Your task to perform on an android device: turn off notifications settings in the gmail app Image 0: 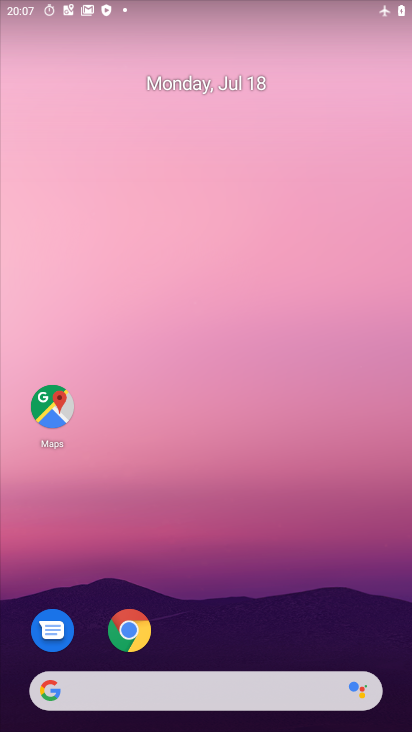
Step 0: drag from (278, 611) to (322, 74)
Your task to perform on an android device: turn off notifications settings in the gmail app Image 1: 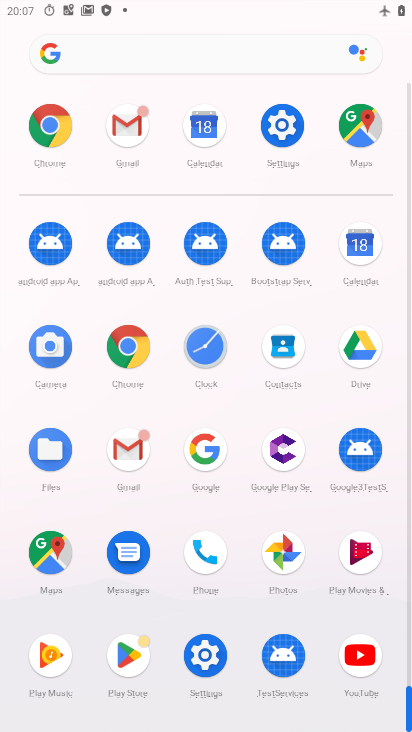
Step 1: click (145, 131)
Your task to perform on an android device: turn off notifications settings in the gmail app Image 2: 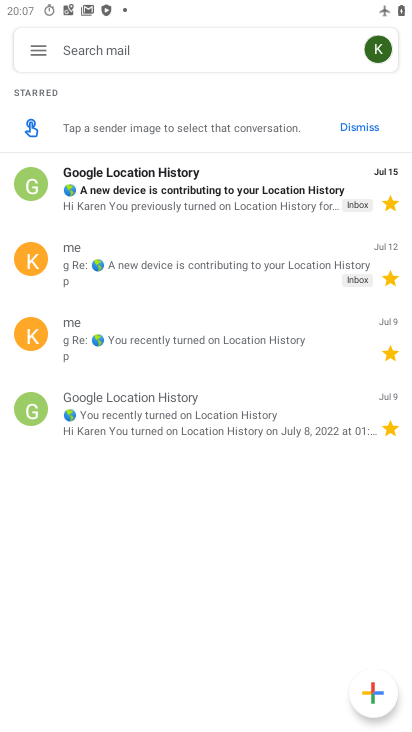
Step 2: click (26, 52)
Your task to perform on an android device: turn off notifications settings in the gmail app Image 3: 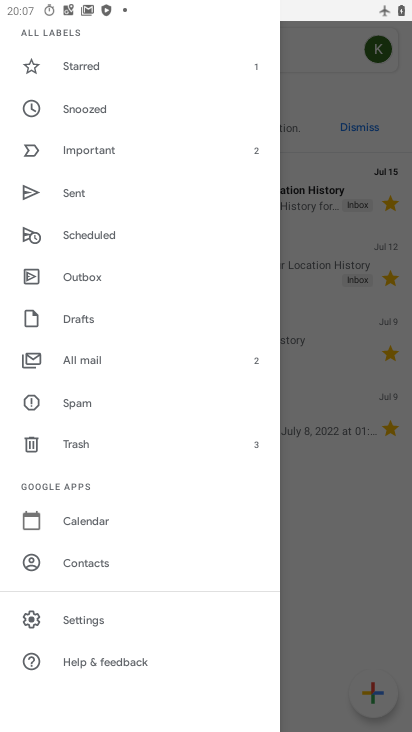
Step 3: click (89, 616)
Your task to perform on an android device: turn off notifications settings in the gmail app Image 4: 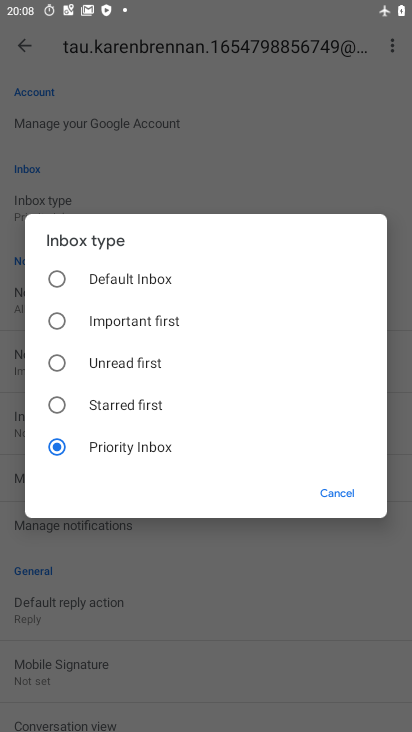
Step 4: click (359, 493)
Your task to perform on an android device: turn off notifications settings in the gmail app Image 5: 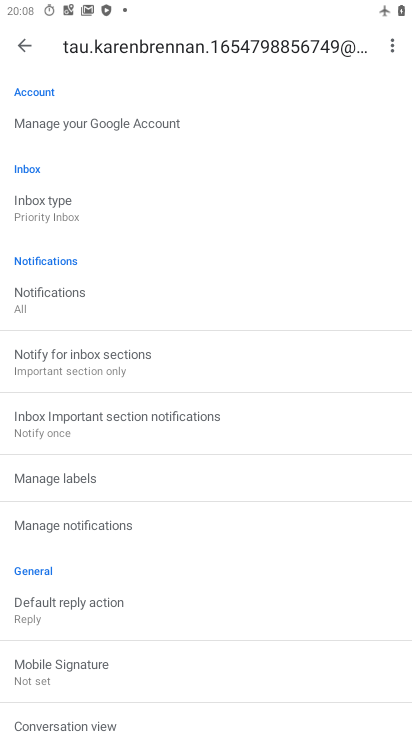
Step 5: click (37, 288)
Your task to perform on an android device: turn off notifications settings in the gmail app Image 6: 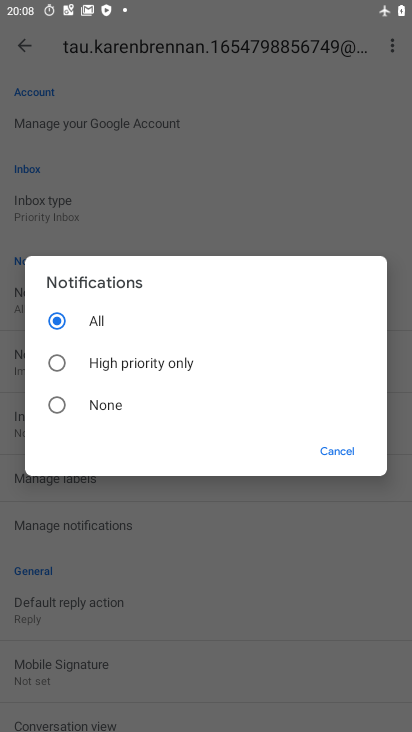
Step 6: click (49, 403)
Your task to perform on an android device: turn off notifications settings in the gmail app Image 7: 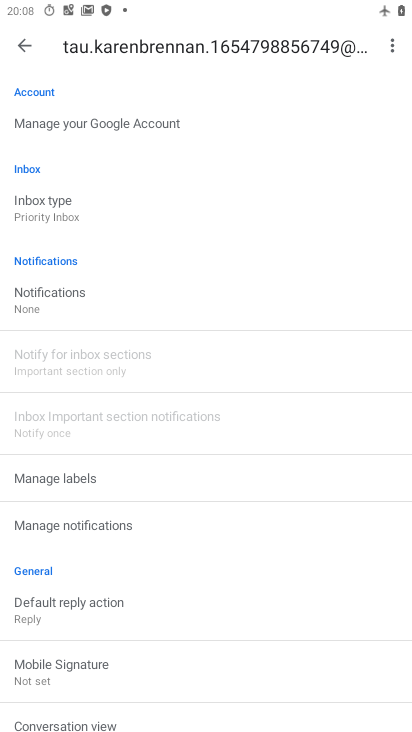
Step 7: task complete